Your task to perform on an android device: Go to Yahoo.com Image 0: 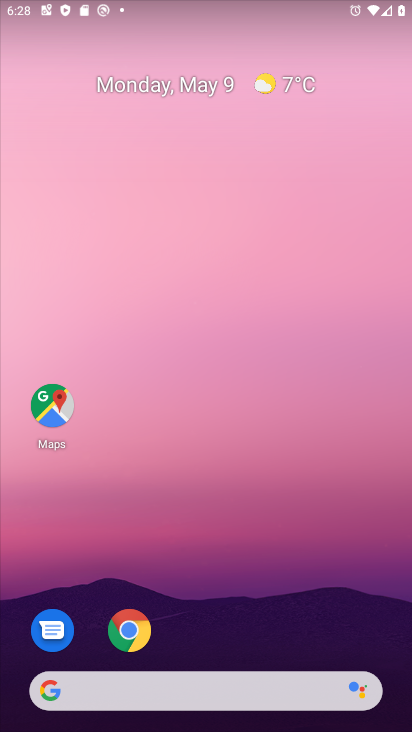
Step 0: click (123, 630)
Your task to perform on an android device: Go to Yahoo.com Image 1: 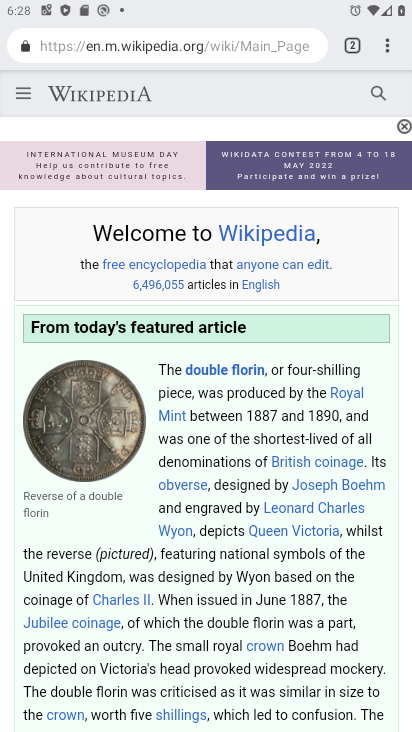
Step 1: click (355, 51)
Your task to perform on an android device: Go to Yahoo.com Image 2: 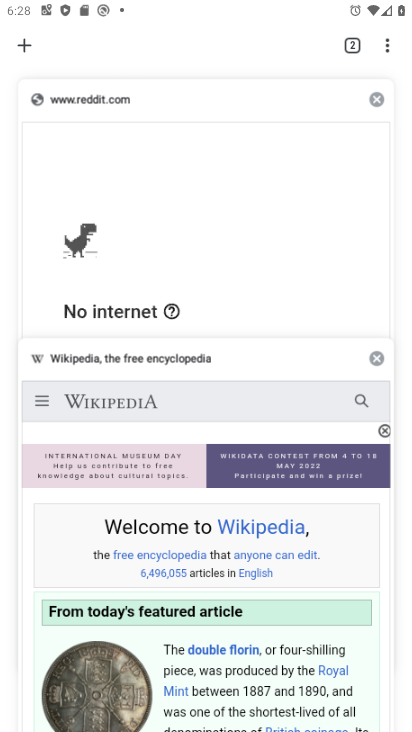
Step 2: click (373, 364)
Your task to perform on an android device: Go to Yahoo.com Image 3: 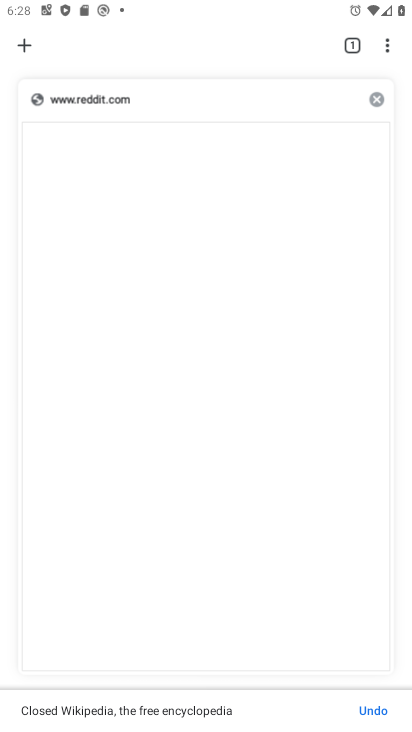
Step 3: click (144, 97)
Your task to perform on an android device: Go to Yahoo.com Image 4: 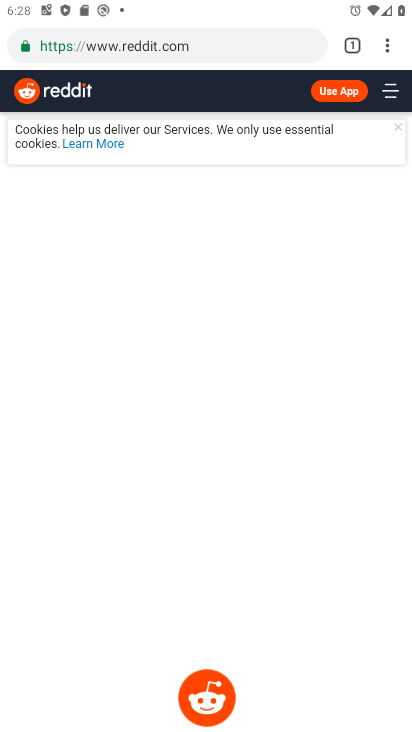
Step 4: click (357, 45)
Your task to perform on an android device: Go to Yahoo.com Image 5: 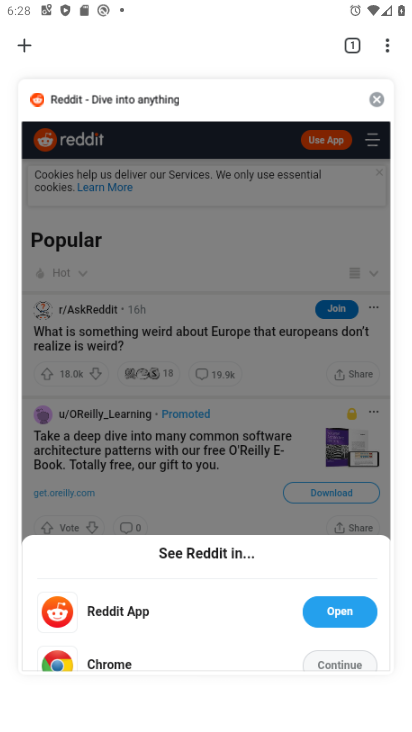
Step 5: click (28, 46)
Your task to perform on an android device: Go to Yahoo.com Image 6: 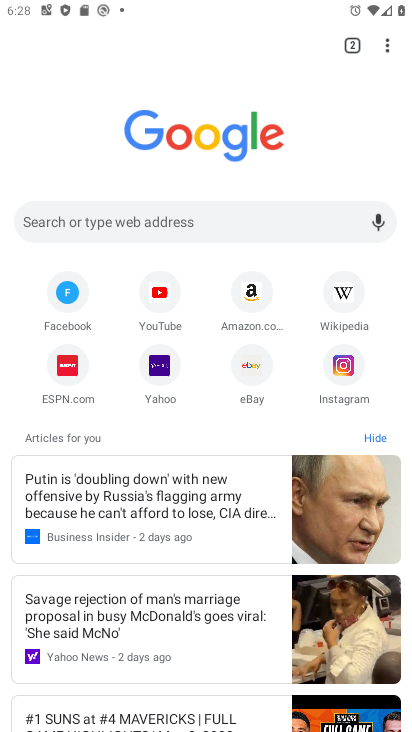
Step 6: click (165, 377)
Your task to perform on an android device: Go to Yahoo.com Image 7: 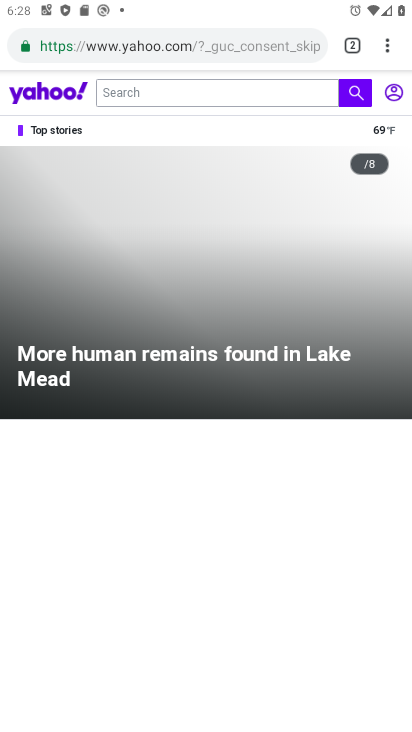
Step 7: task complete